Your task to perform on an android device: show emergency info Image 0: 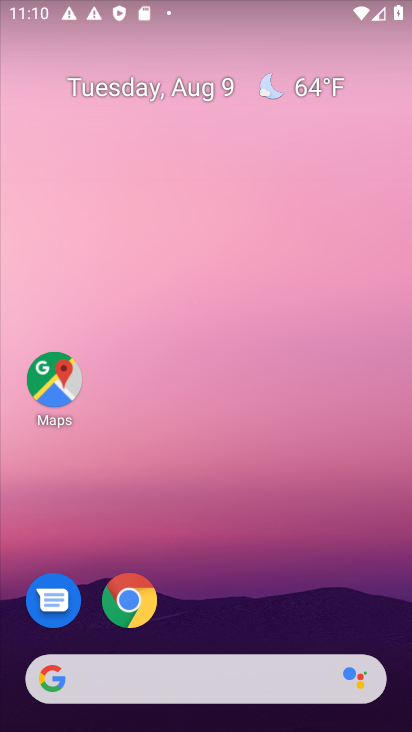
Step 0: drag from (53, 678) to (175, 425)
Your task to perform on an android device: show emergency info Image 1: 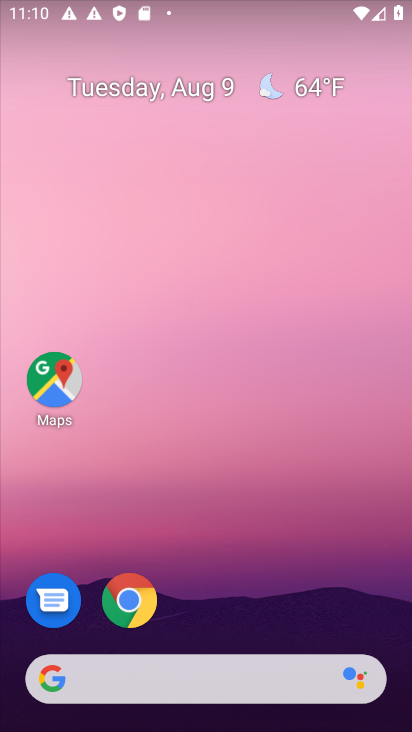
Step 1: drag from (22, 700) to (174, 349)
Your task to perform on an android device: show emergency info Image 2: 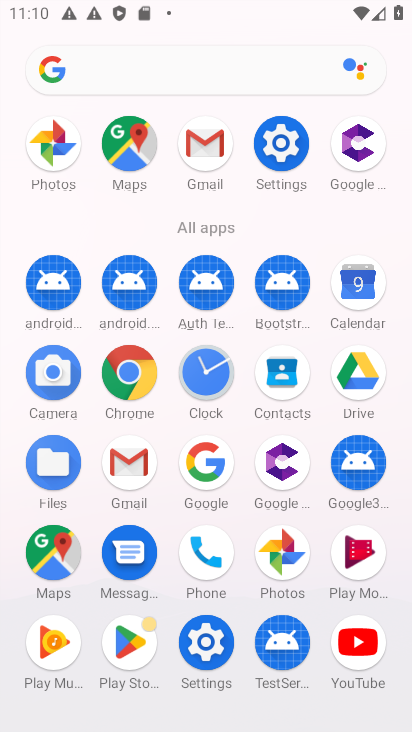
Step 2: click (200, 650)
Your task to perform on an android device: show emergency info Image 3: 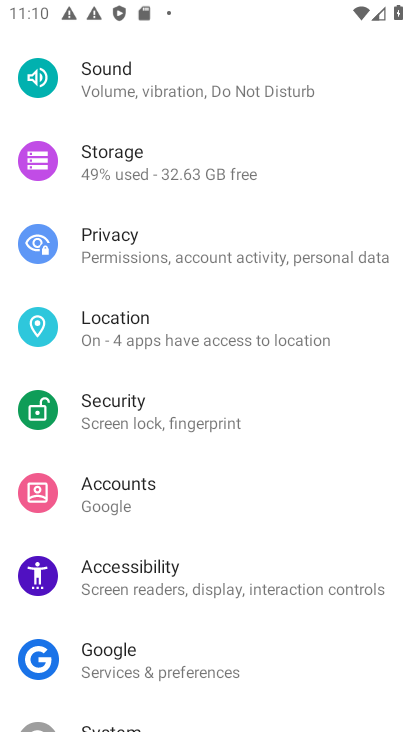
Step 3: drag from (348, 78) to (342, 278)
Your task to perform on an android device: show emergency info Image 4: 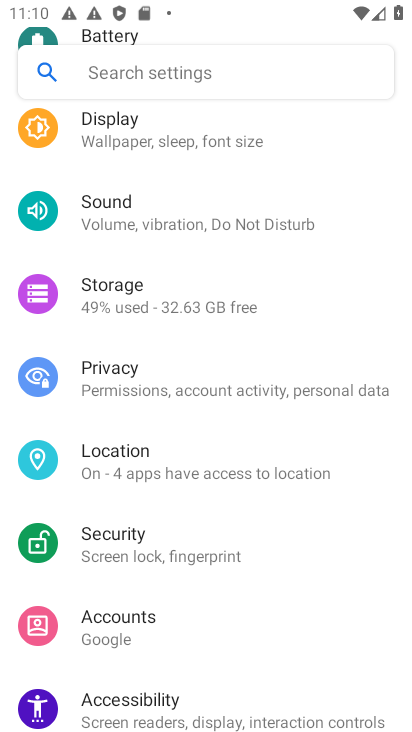
Step 4: drag from (363, 138) to (378, 433)
Your task to perform on an android device: show emergency info Image 5: 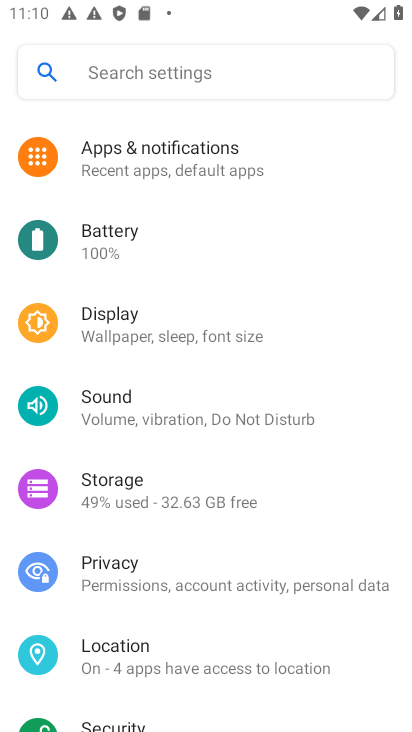
Step 5: click (191, 177)
Your task to perform on an android device: show emergency info Image 6: 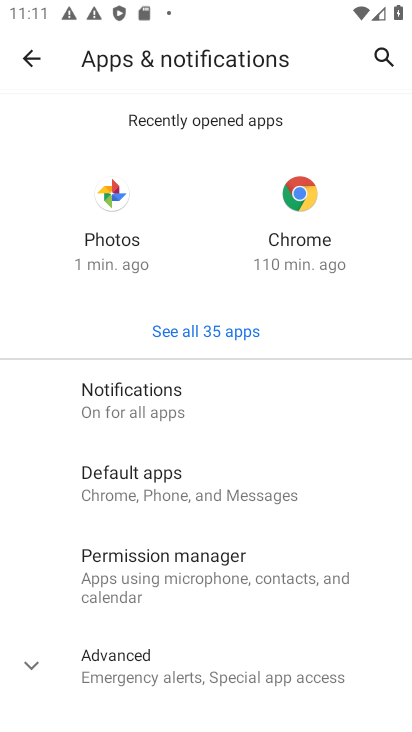
Step 6: click (185, 676)
Your task to perform on an android device: show emergency info Image 7: 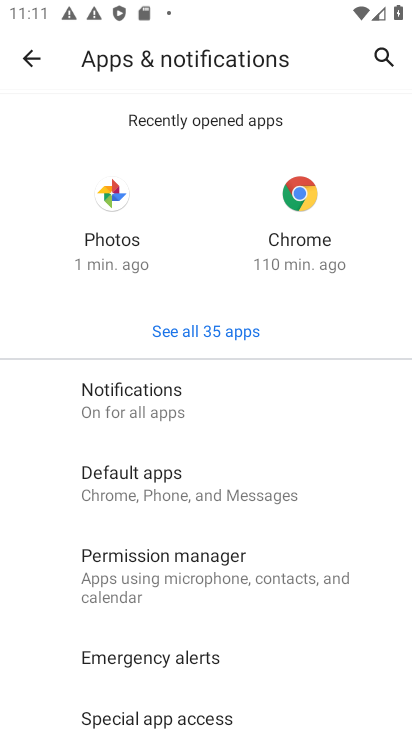
Step 7: click (185, 666)
Your task to perform on an android device: show emergency info Image 8: 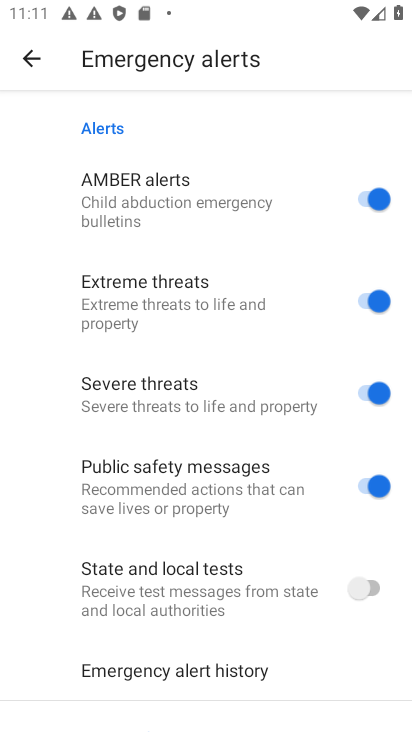
Step 8: task complete